Your task to perform on an android device: see tabs open on other devices in the chrome app Image 0: 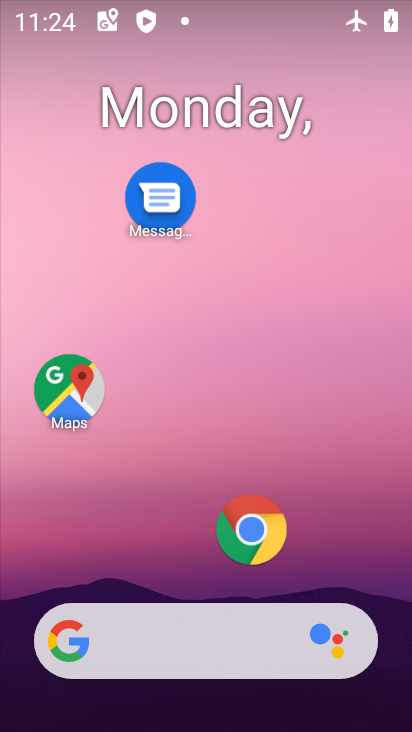
Step 0: drag from (165, 555) to (310, 14)
Your task to perform on an android device: see tabs open on other devices in the chrome app Image 1: 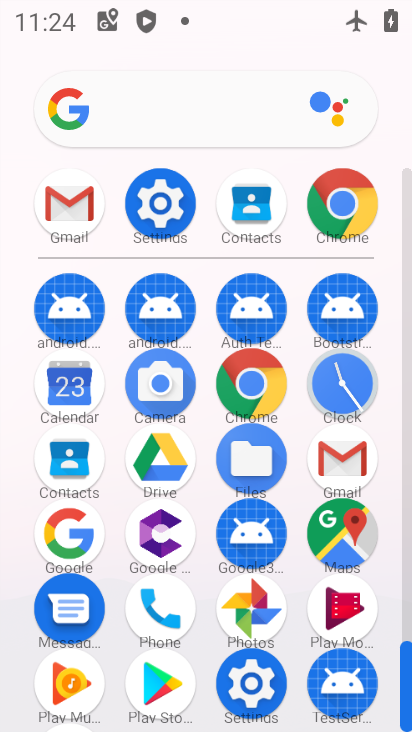
Step 1: click (257, 395)
Your task to perform on an android device: see tabs open on other devices in the chrome app Image 2: 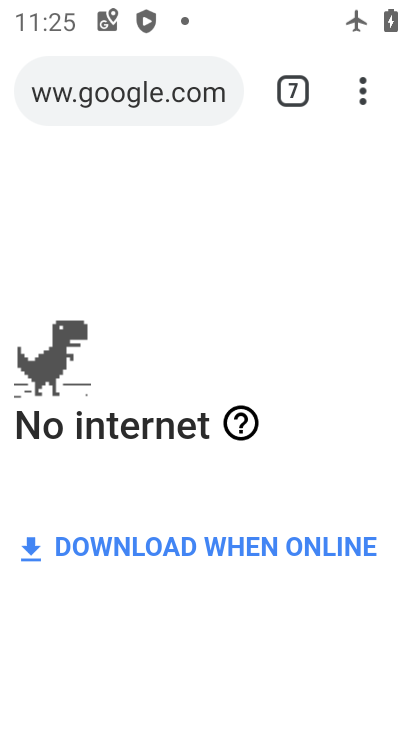
Step 2: click (356, 103)
Your task to perform on an android device: see tabs open on other devices in the chrome app Image 3: 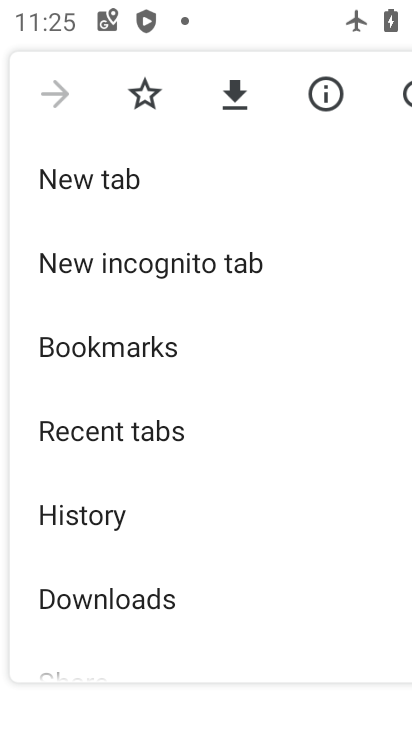
Step 3: click (361, 100)
Your task to perform on an android device: see tabs open on other devices in the chrome app Image 4: 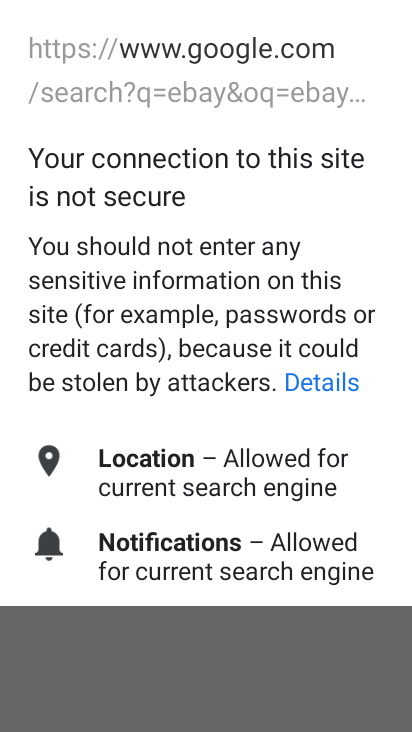
Step 4: task complete